Your task to perform on an android device: Go to Reddit.com Image 0: 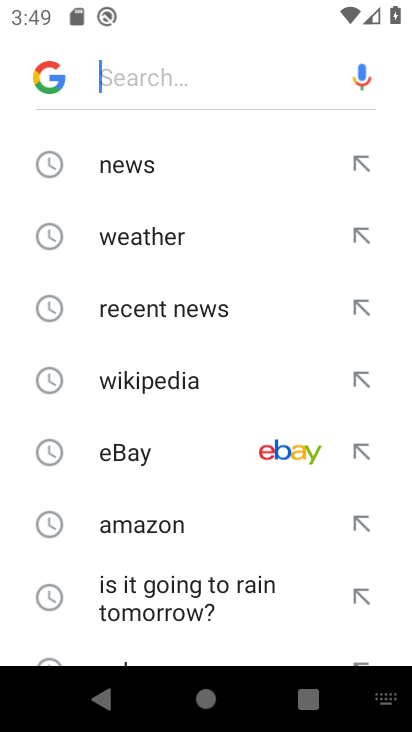
Step 0: press home button
Your task to perform on an android device: Go to Reddit.com Image 1: 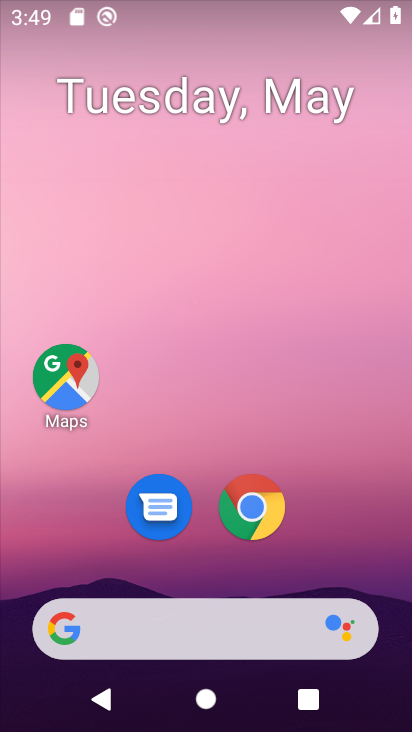
Step 1: click (252, 512)
Your task to perform on an android device: Go to Reddit.com Image 2: 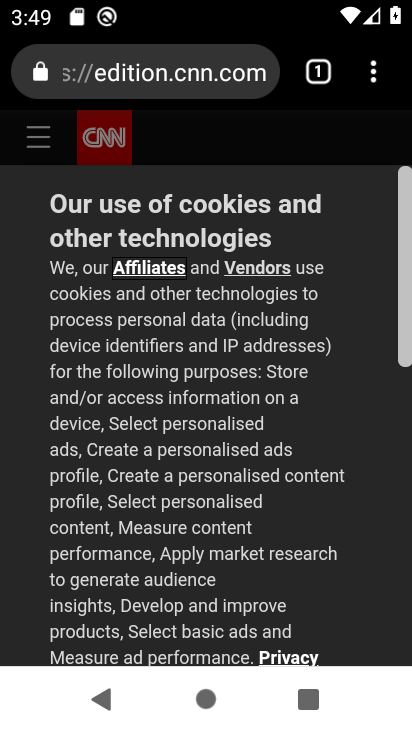
Step 2: click (177, 75)
Your task to perform on an android device: Go to Reddit.com Image 3: 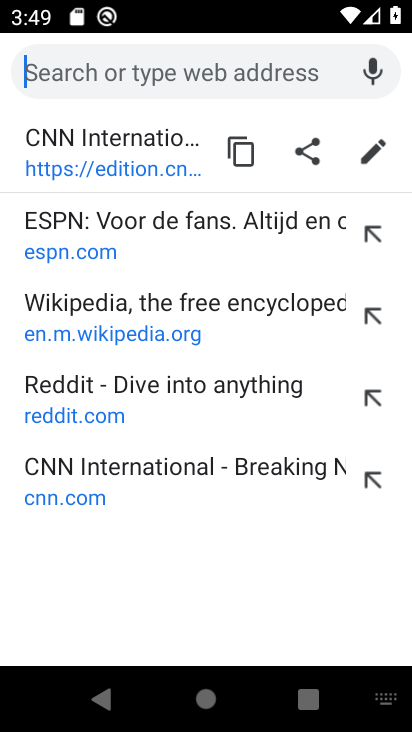
Step 3: type "Reddit.com"
Your task to perform on an android device: Go to Reddit.com Image 4: 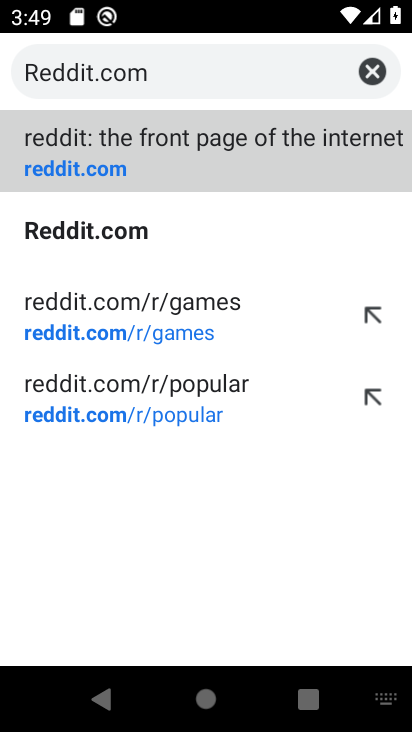
Step 4: click (70, 144)
Your task to perform on an android device: Go to Reddit.com Image 5: 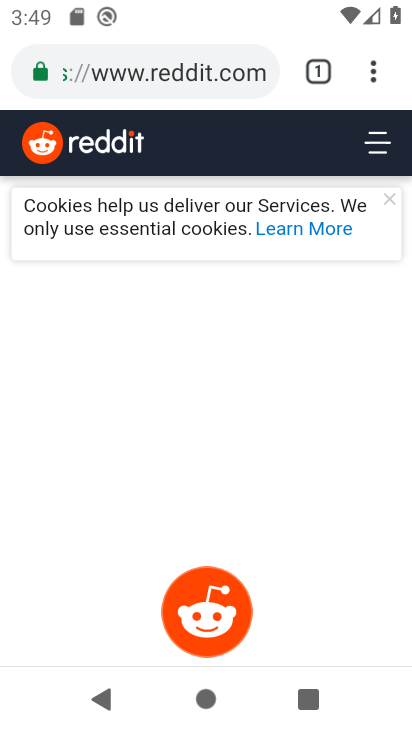
Step 5: task complete